Your task to perform on an android device: When is my next appointment? Image 0: 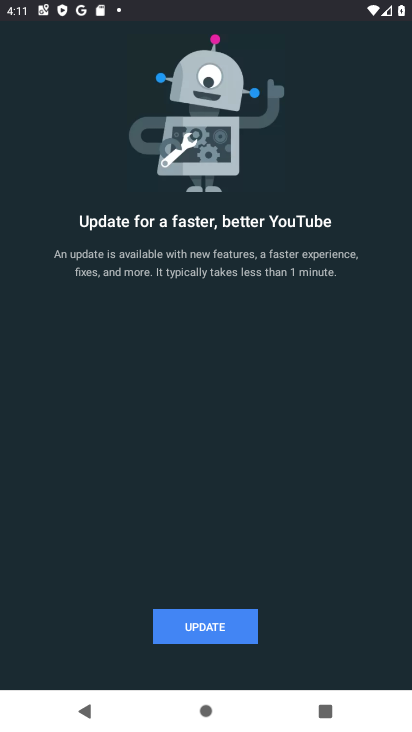
Step 0: press back button
Your task to perform on an android device: When is my next appointment? Image 1: 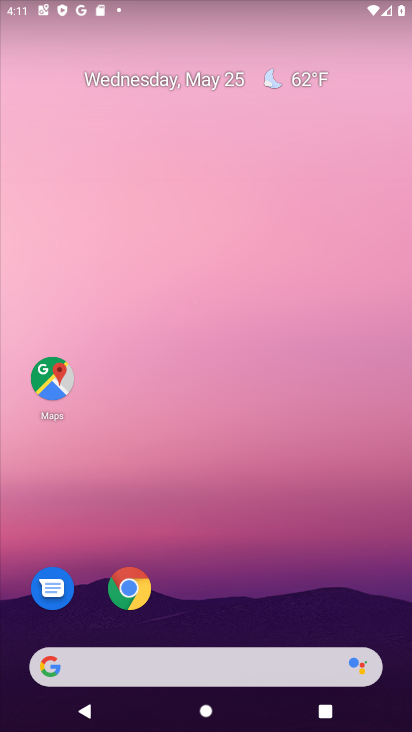
Step 1: drag from (204, 608) to (223, 12)
Your task to perform on an android device: When is my next appointment? Image 2: 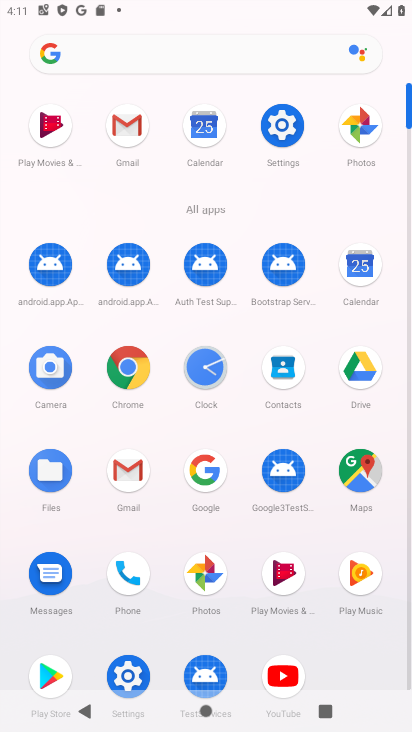
Step 2: click (214, 123)
Your task to perform on an android device: When is my next appointment? Image 3: 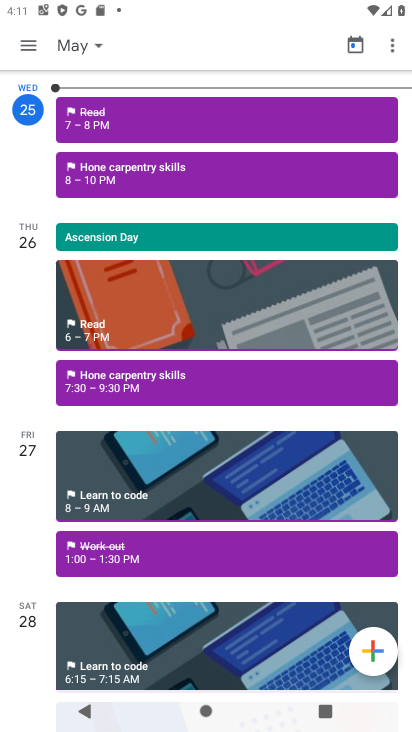
Step 3: task complete